Your task to perform on an android device: turn notification dots on Image 0: 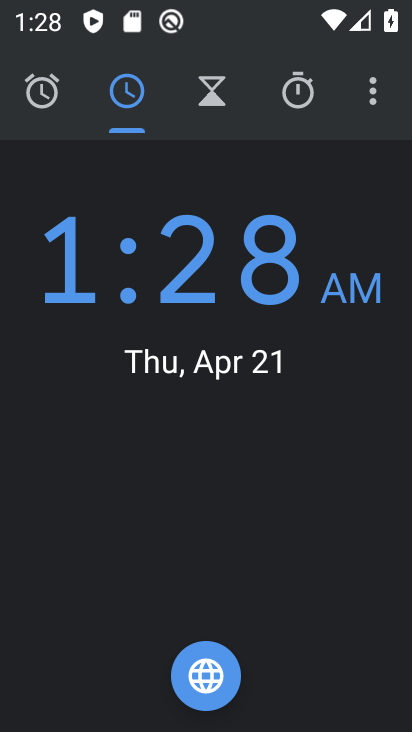
Step 0: press home button
Your task to perform on an android device: turn notification dots on Image 1: 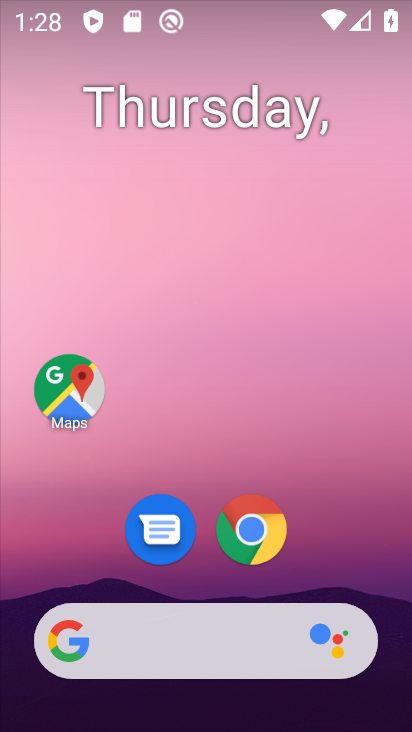
Step 1: drag from (185, 712) to (175, 160)
Your task to perform on an android device: turn notification dots on Image 2: 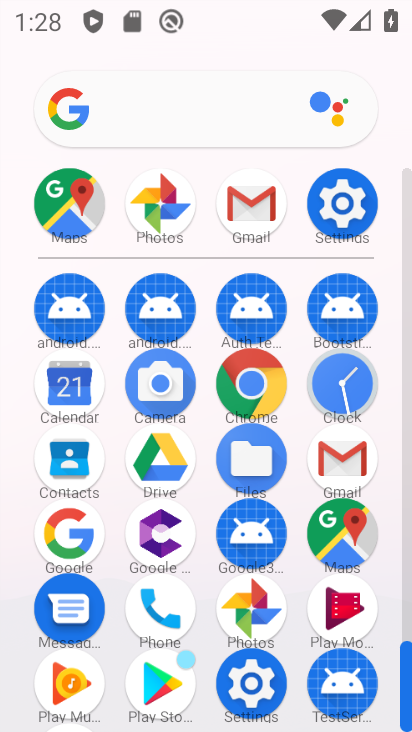
Step 2: click (337, 197)
Your task to perform on an android device: turn notification dots on Image 3: 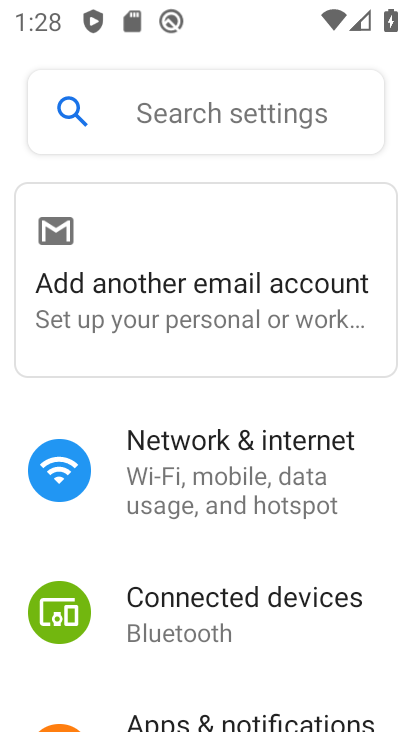
Step 3: drag from (213, 682) to (205, 247)
Your task to perform on an android device: turn notification dots on Image 4: 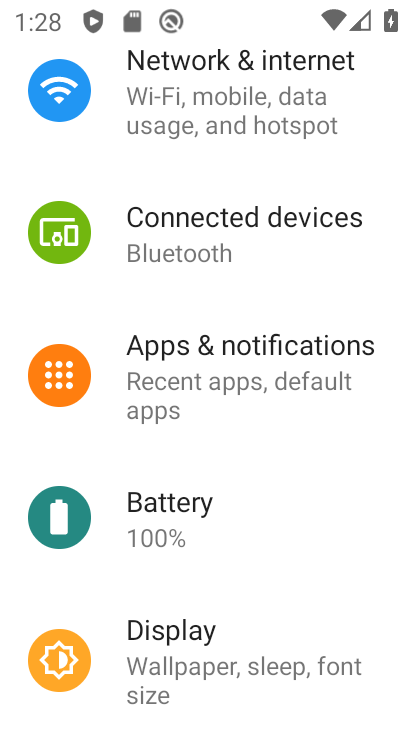
Step 4: click (219, 362)
Your task to perform on an android device: turn notification dots on Image 5: 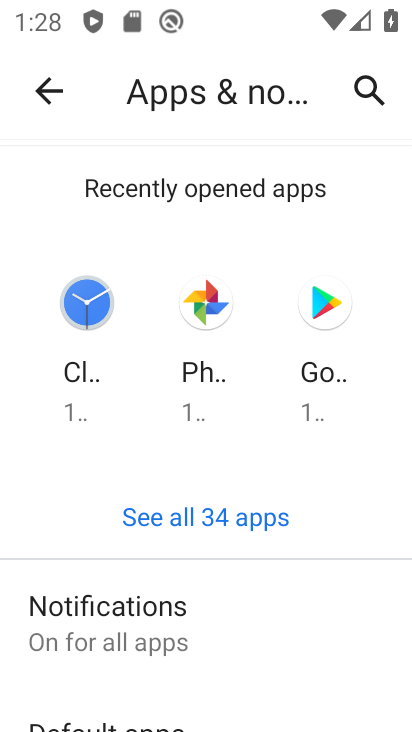
Step 5: click (109, 616)
Your task to perform on an android device: turn notification dots on Image 6: 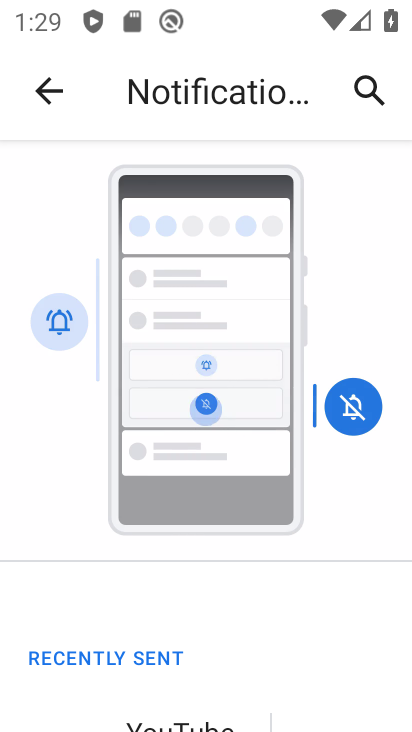
Step 6: drag from (172, 677) to (167, 185)
Your task to perform on an android device: turn notification dots on Image 7: 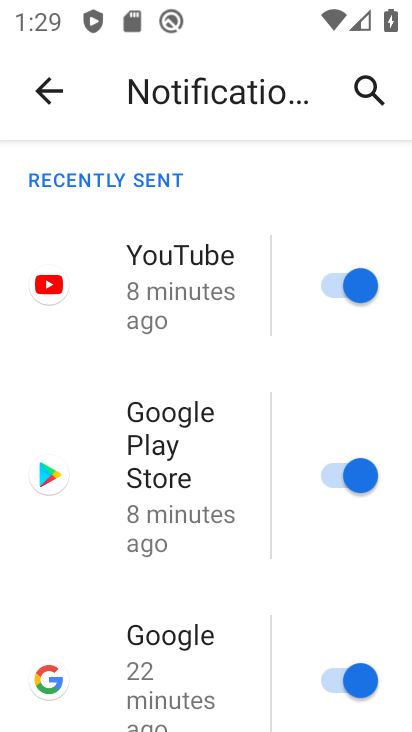
Step 7: drag from (162, 696) to (139, 272)
Your task to perform on an android device: turn notification dots on Image 8: 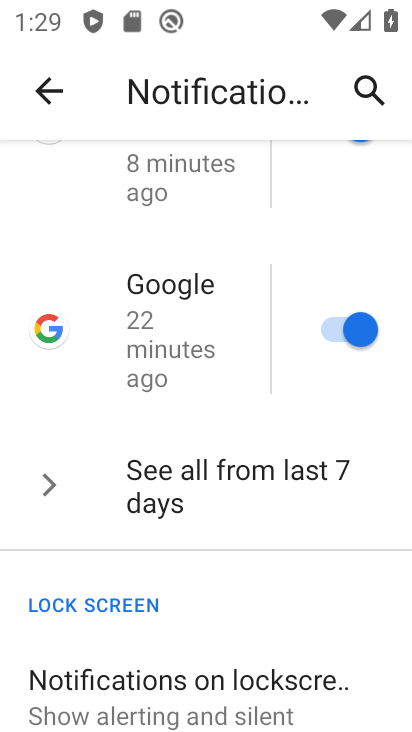
Step 8: drag from (180, 668) to (163, 130)
Your task to perform on an android device: turn notification dots on Image 9: 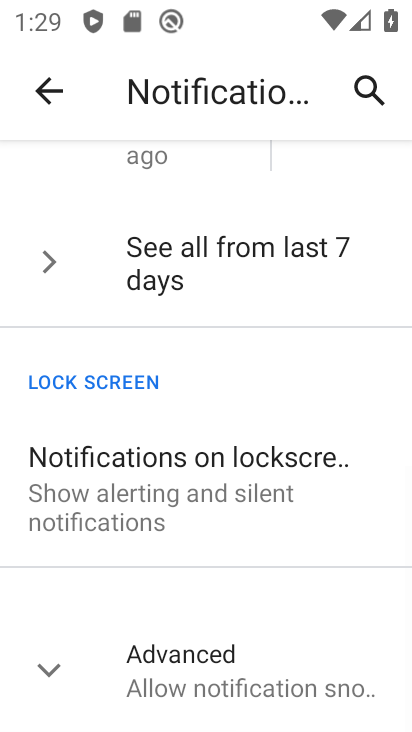
Step 9: click (179, 669)
Your task to perform on an android device: turn notification dots on Image 10: 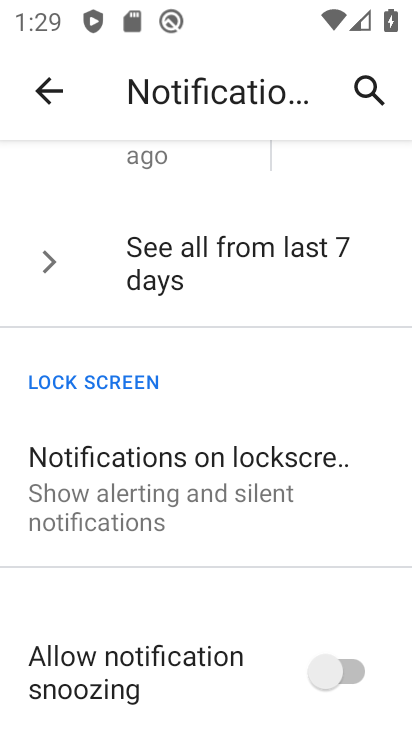
Step 10: task complete